Your task to perform on an android device: Show the shopping cart on walmart.com. Image 0: 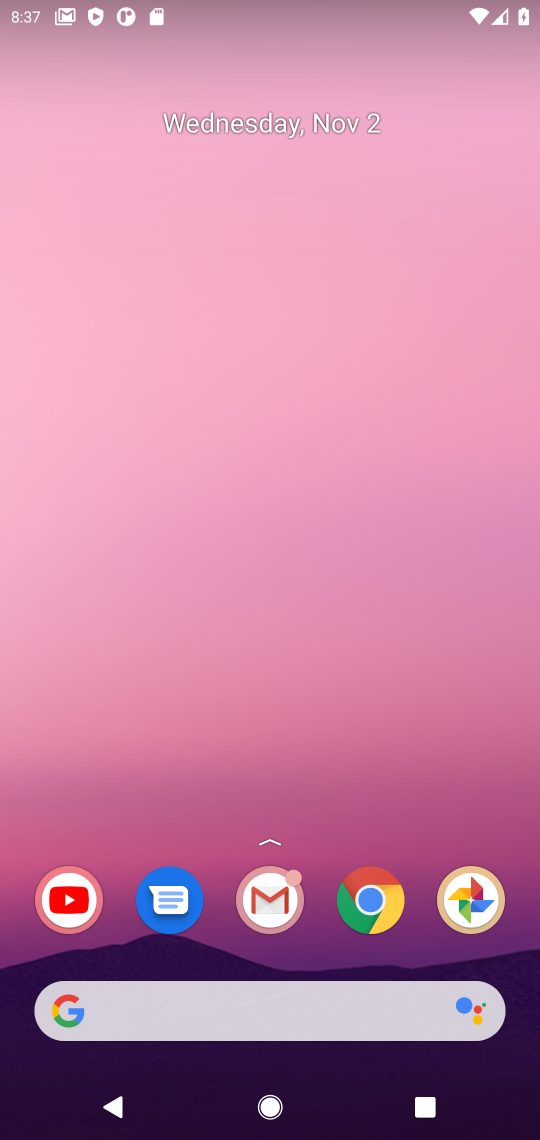
Step 0: click (377, 885)
Your task to perform on an android device: Show the shopping cart on walmart.com. Image 1: 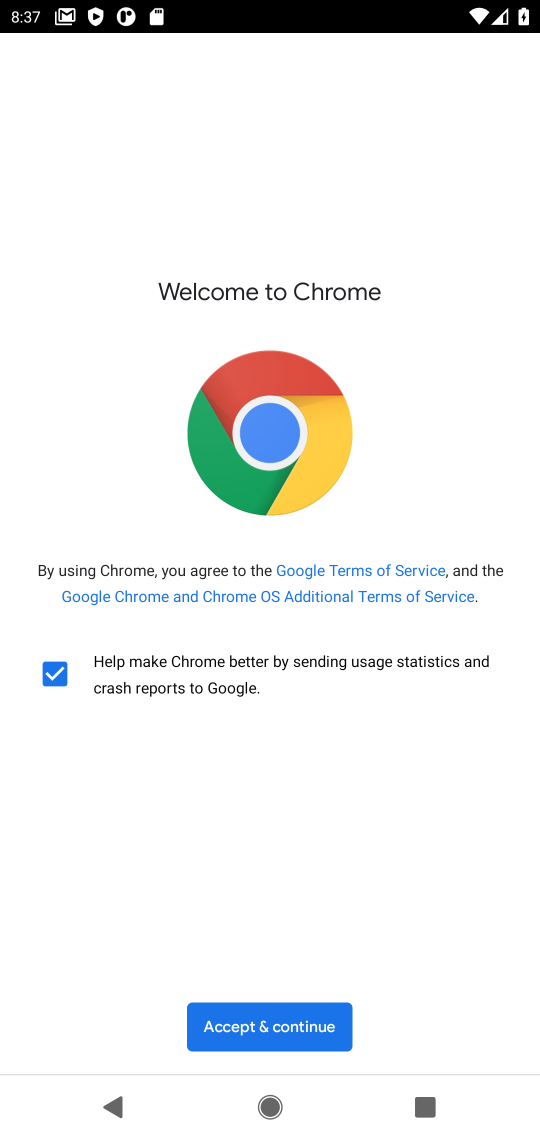
Step 1: click (263, 1031)
Your task to perform on an android device: Show the shopping cart on walmart.com. Image 2: 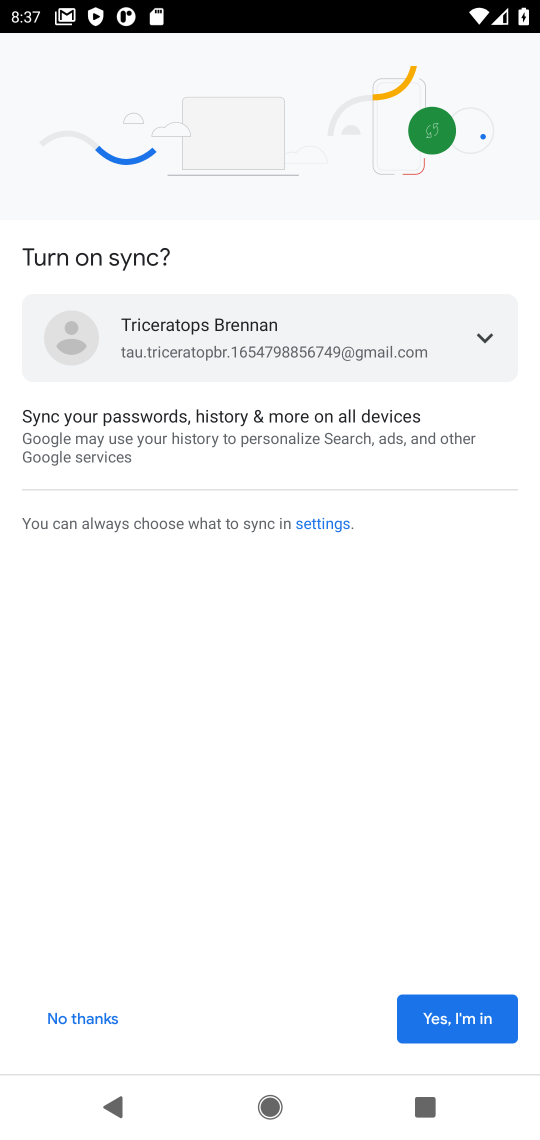
Step 2: click (494, 998)
Your task to perform on an android device: Show the shopping cart on walmart.com. Image 3: 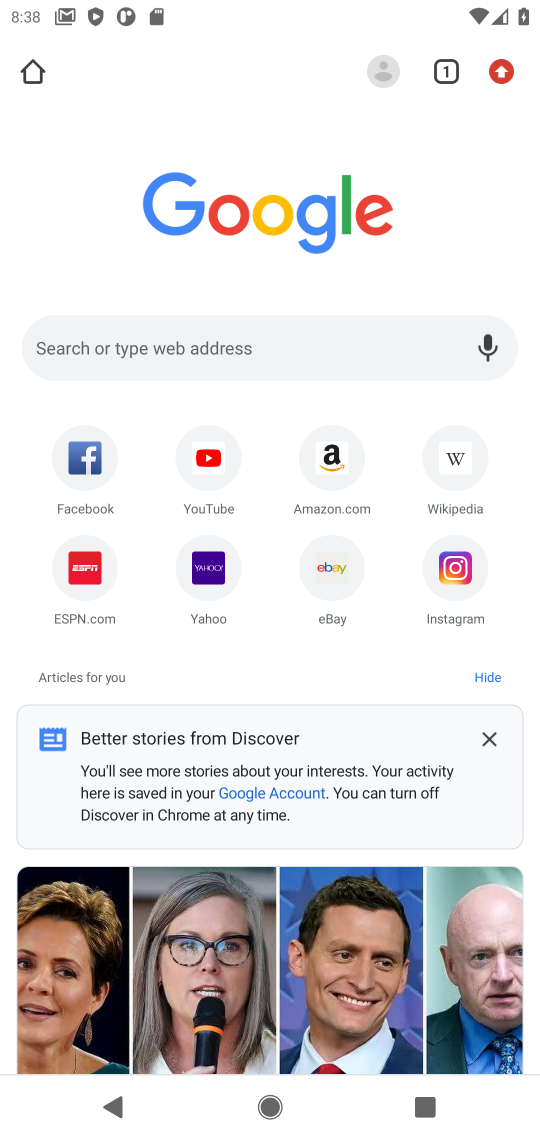
Step 3: click (87, 339)
Your task to perform on an android device: Show the shopping cart on walmart.com. Image 4: 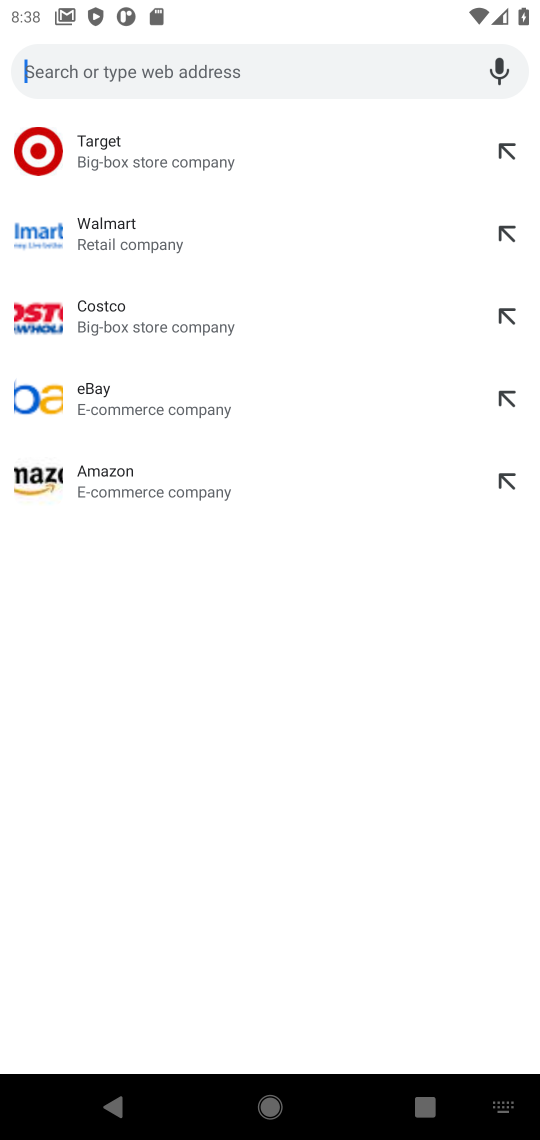
Step 4: type "walmart"
Your task to perform on an android device: Show the shopping cart on walmart.com. Image 5: 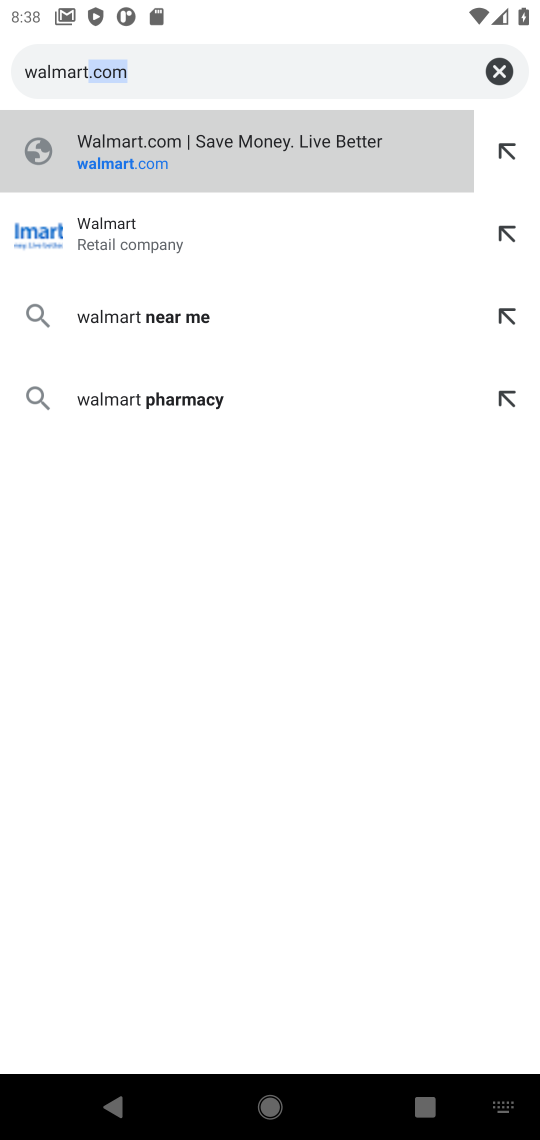
Step 5: click (137, 212)
Your task to perform on an android device: Show the shopping cart on walmart.com. Image 6: 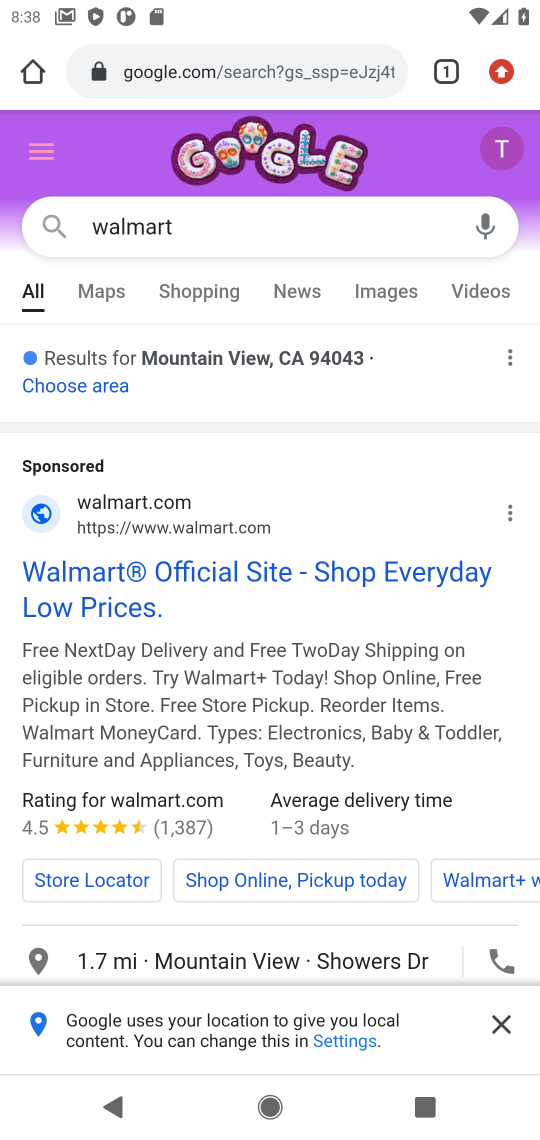
Step 6: click (55, 570)
Your task to perform on an android device: Show the shopping cart on walmart.com. Image 7: 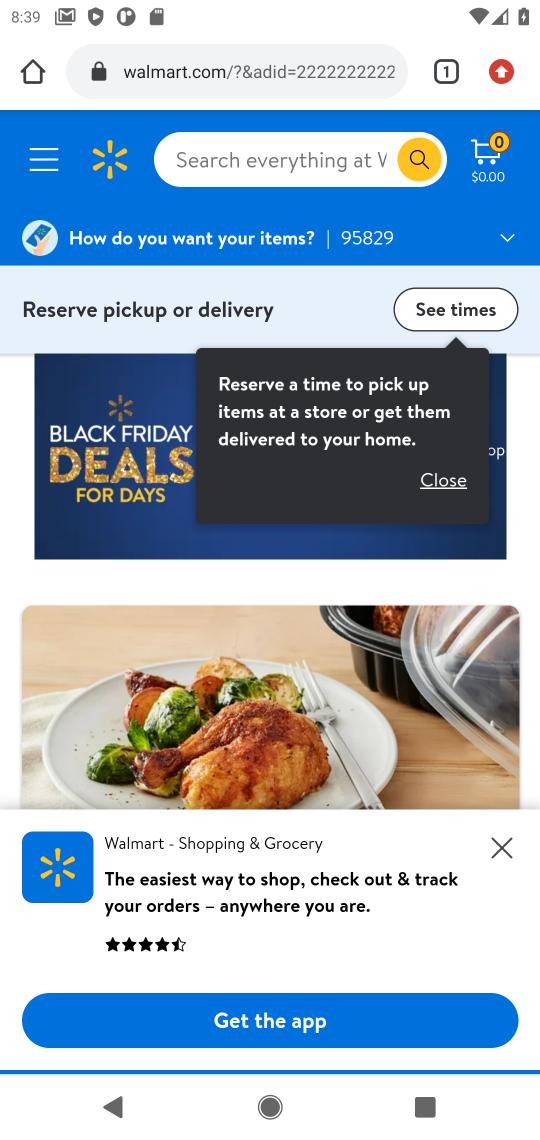
Step 7: click (494, 149)
Your task to perform on an android device: Show the shopping cart on walmart.com. Image 8: 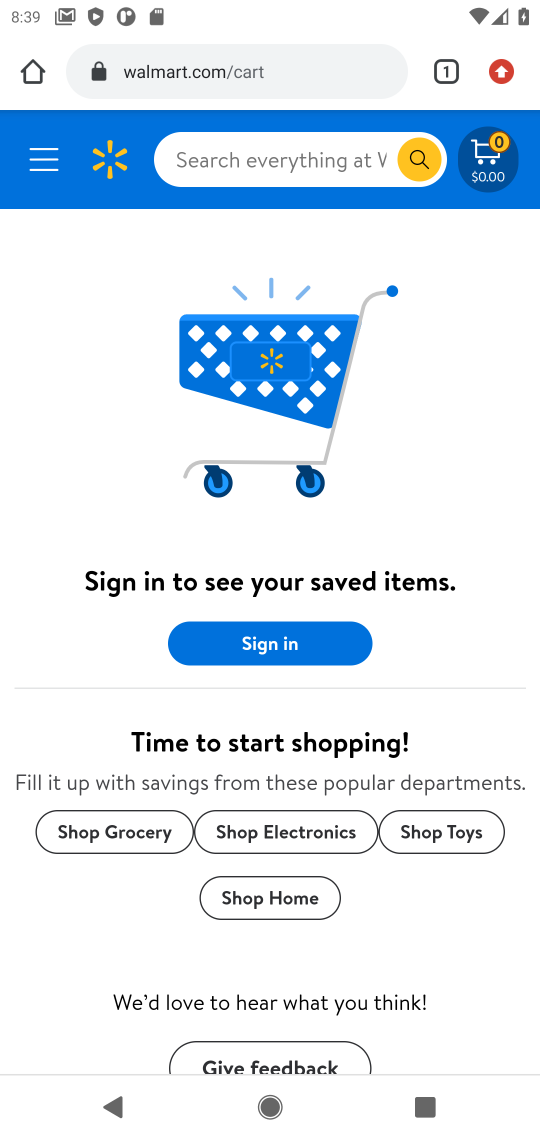
Step 8: task complete